Your task to perform on an android device: Open Google Maps and go to "Timeline" Image 0: 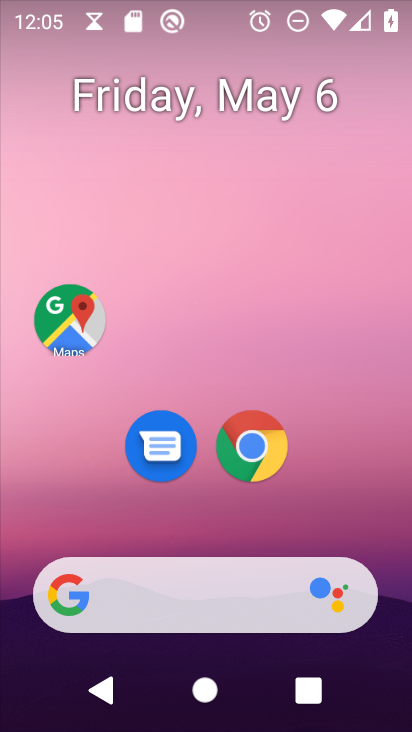
Step 0: drag from (327, 623) to (181, 158)
Your task to perform on an android device: Open Google Maps and go to "Timeline" Image 1: 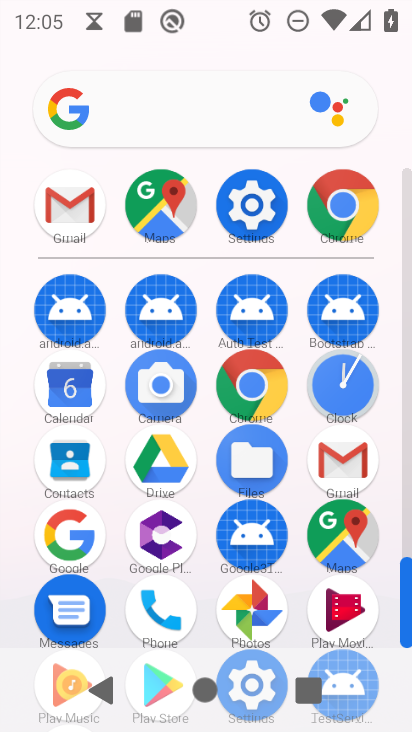
Step 1: click (157, 234)
Your task to perform on an android device: Open Google Maps and go to "Timeline" Image 2: 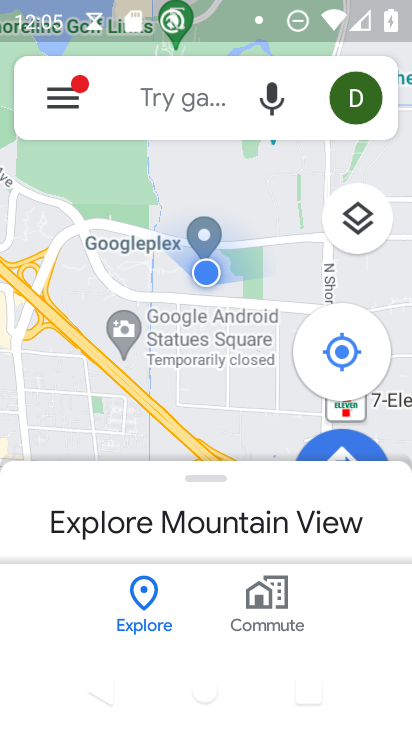
Step 2: click (54, 114)
Your task to perform on an android device: Open Google Maps and go to "Timeline" Image 3: 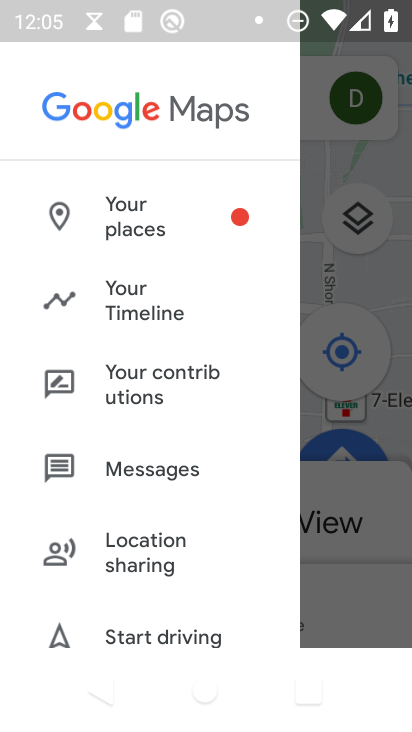
Step 3: drag from (179, 543) to (200, 139)
Your task to perform on an android device: Open Google Maps and go to "Timeline" Image 4: 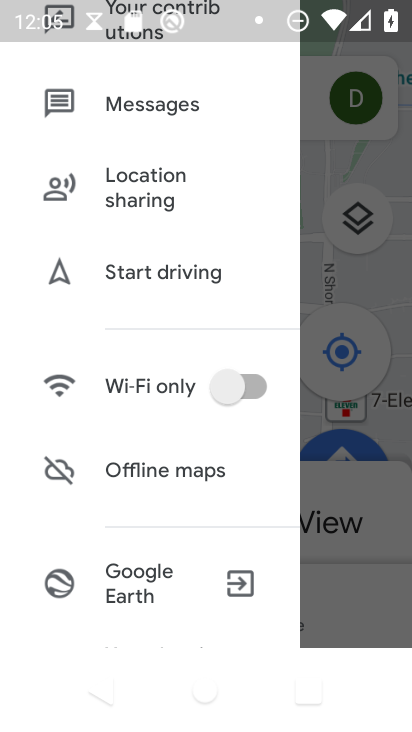
Step 4: drag from (169, 535) to (214, 235)
Your task to perform on an android device: Open Google Maps and go to "Timeline" Image 5: 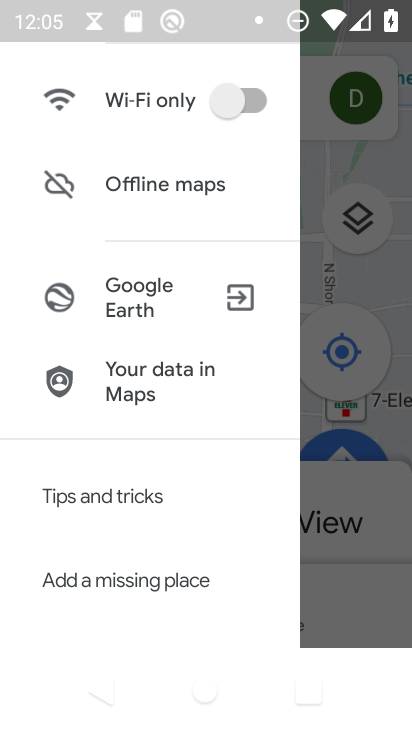
Step 5: drag from (114, 522) to (167, 296)
Your task to perform on an android device: Open Google Maps and go to "Timeline" Image 6: 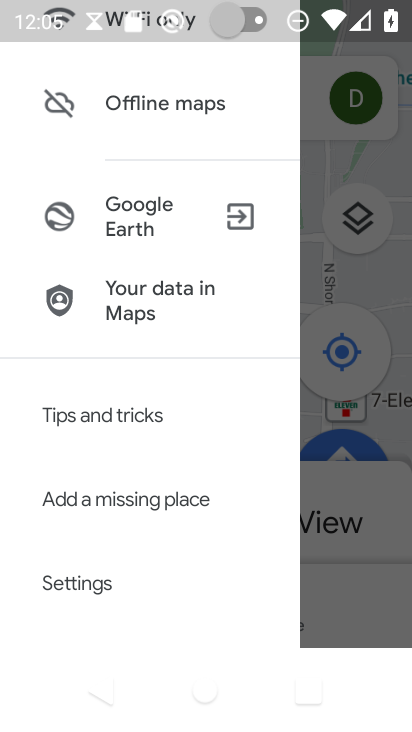
Step 6: click (102, 576)
Your task to perform on an android device: Open Google Maps and go to "Timeline" Image 7: 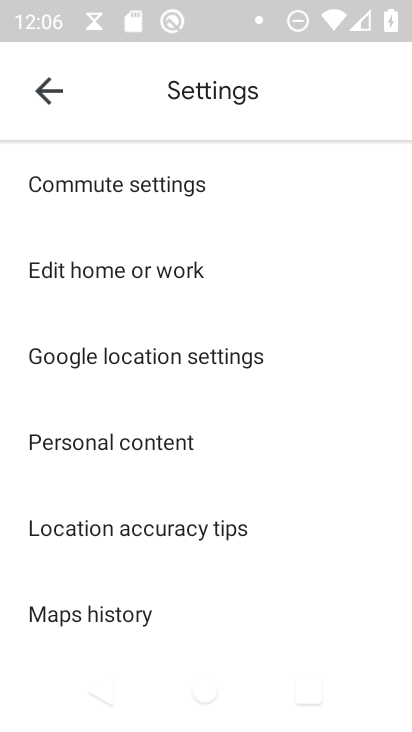
Step 7: drag from (140, 548) to (165, 481)
Your task to perform on an android device: Open Google Maps and go to "Timeline" Image 8: 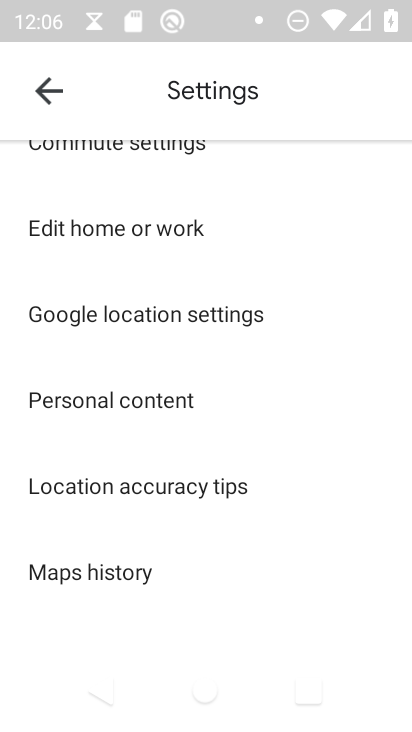
Step 8: click (55, 84)
Your task to perform on an android device: Open Google Maps and go to "Timeline" Image 9: 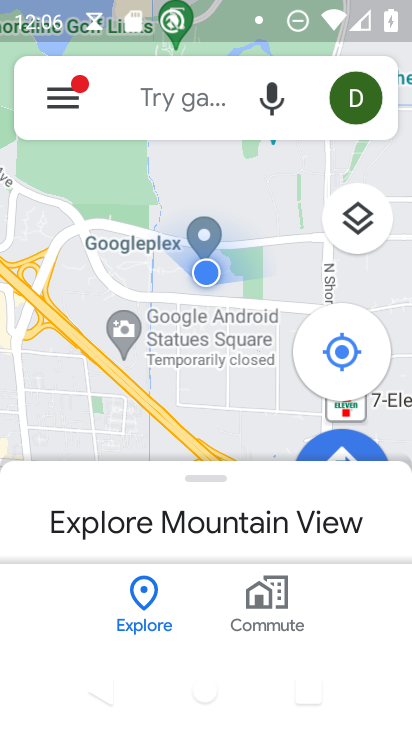
Step 9: click (47, 100)
Your task to perform on an android device: Open Google Maps and go to "Timeline" Image 10: 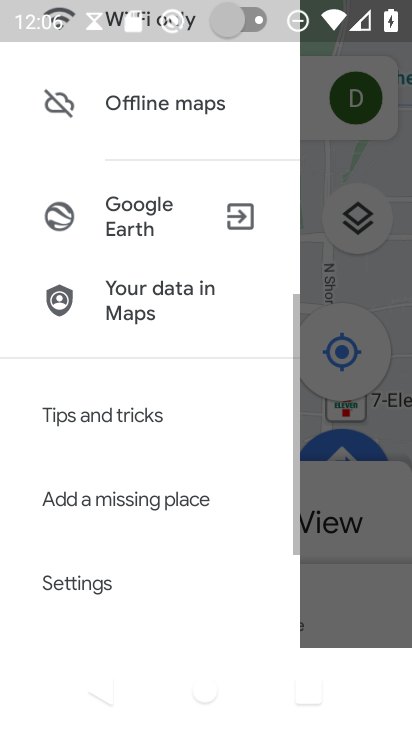
Step 10: drag from (152, 257) to (107, 576)
Your task to perform on an android device: Open Google Maps and go to "Timeline" Image 11: 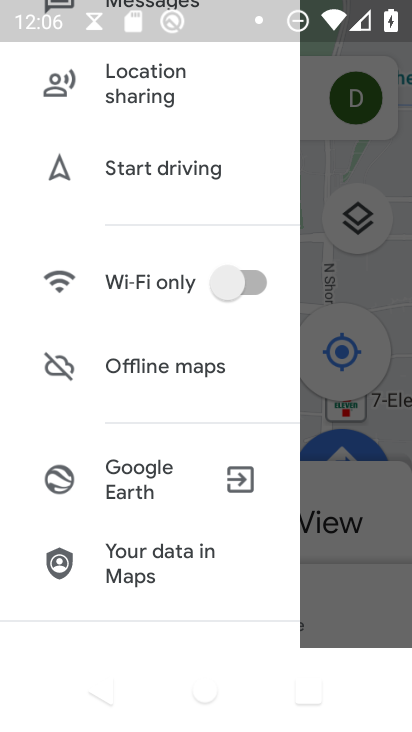
Step 11: drag from (153, 175) to (148, 482)
Your task to perform on an android device: Open Google Maps and go to "Timeline" Image 12: 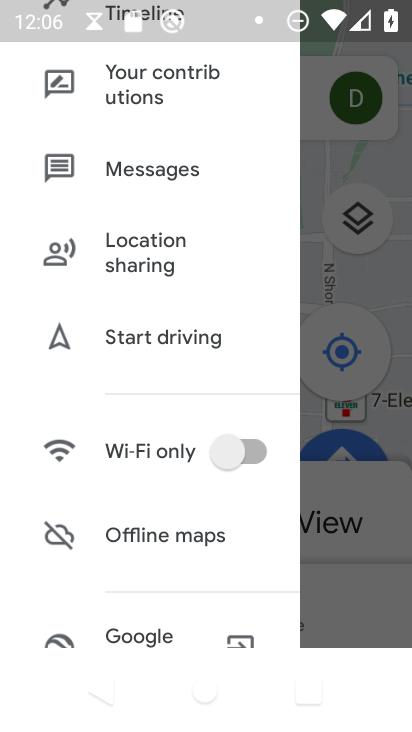
Step 12: drag from (121, 153) to (78, 460)
Your task to perform on an android device: Open Google Maps and go to "Timeline" Image 13: 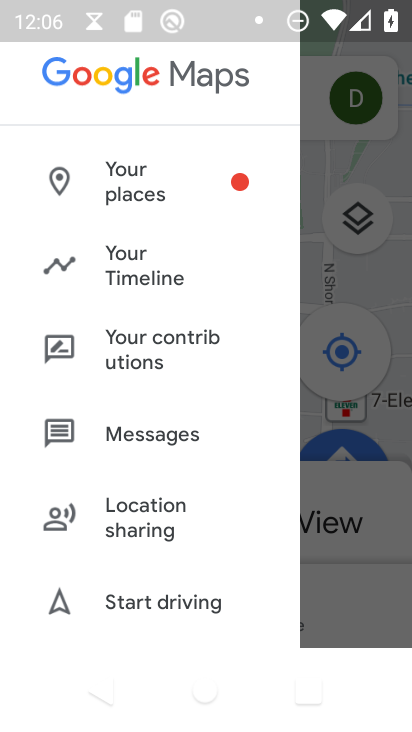
Step 13: drag from (156, 209) to (151, 371)
Your task to perform on an android device: Open Google Maps and go to "Timeline" Image 14: 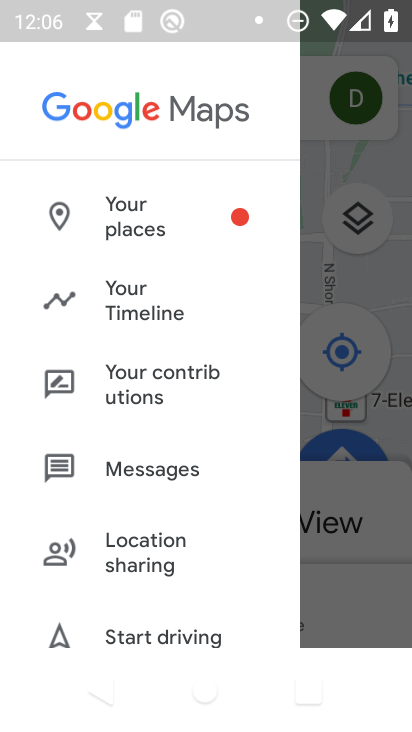
Step 14: click (152, 306)
Your task to perform on an android device: Open Google Maps and go to "Timeline" Image 15: 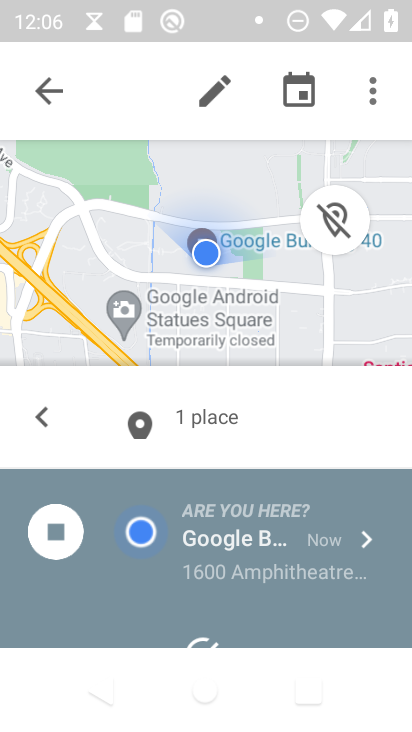
Step 15: task complete